Your task to perform on an android device: open app "Paramount+ | Peak Streaming" Image 0: 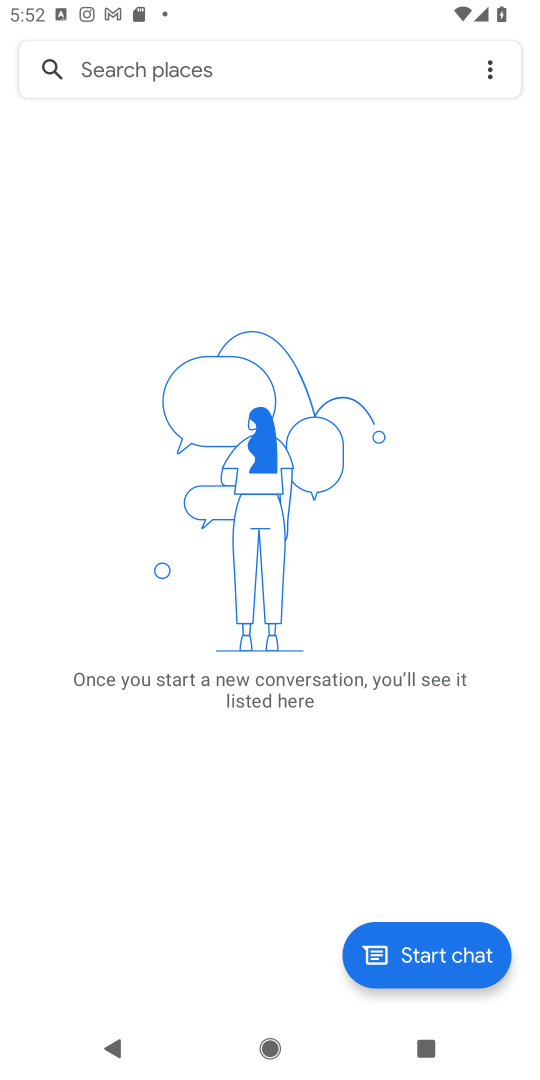
Step 0: press home button
Your task to perform on an android device: open app "Paramount+ | Peak Streaming" Image 1: 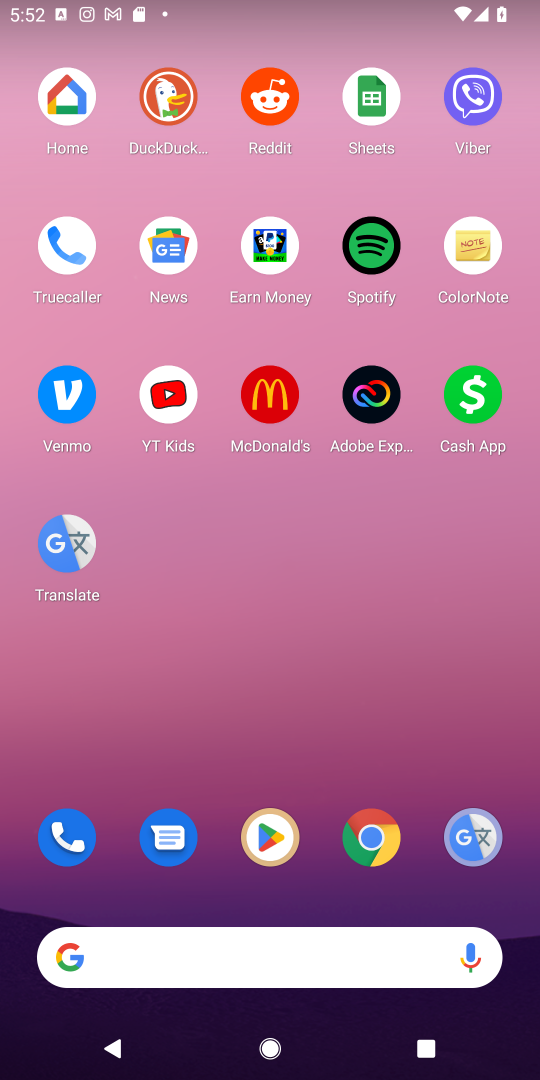
Step 1: press home button
Your task to perform on an android device: open app "Paramount+ | Peak Streaming" Image 2: 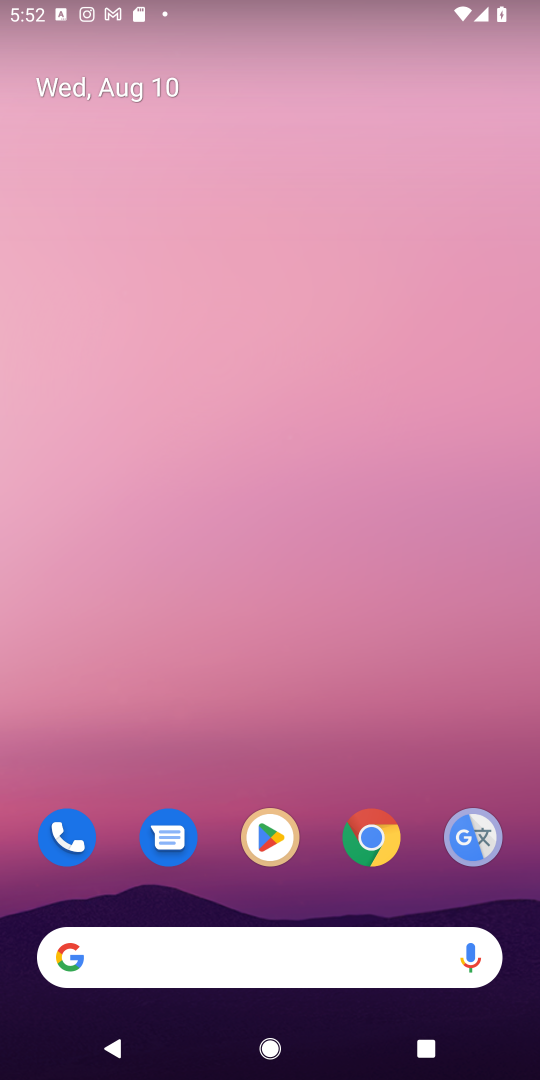
Step 2: click (275, 831)
Your task to perform on an android device: open app "Paramount+ | Peak Streaming" Image 3: 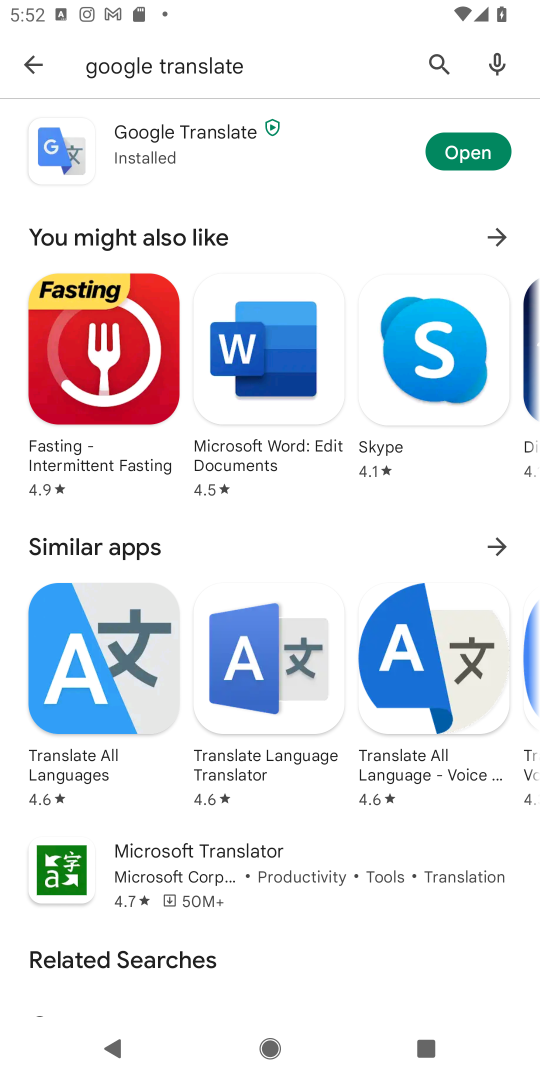
Step 3: click (429, 57)
Your task to perform on an android device: open app "Paramount+ | Peak Streaming" Image 4: 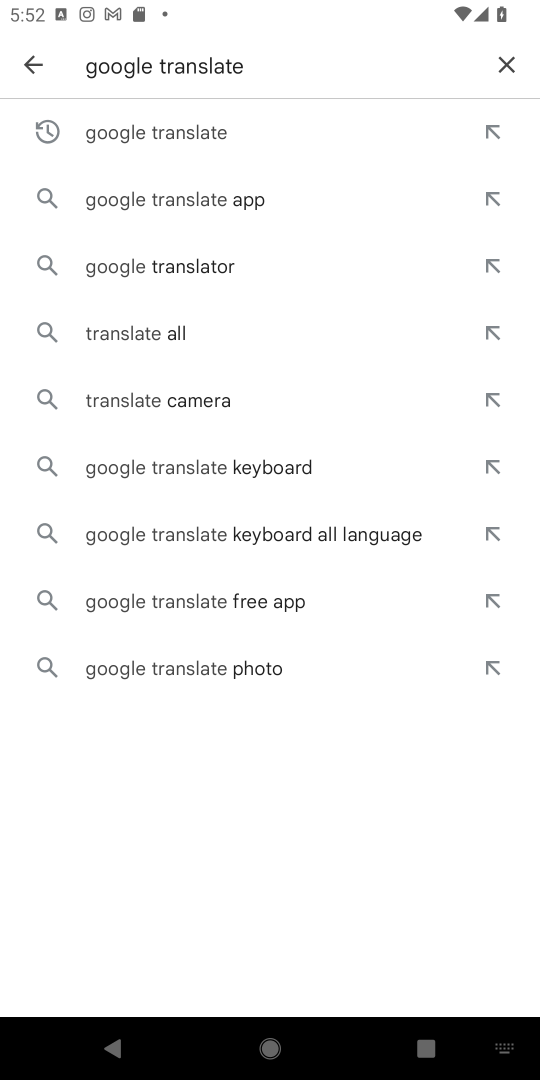
Step 4: click (509, 55)
Your task to perform on an android device: open app "Paramount+ | Peak Streaming" Image 5: 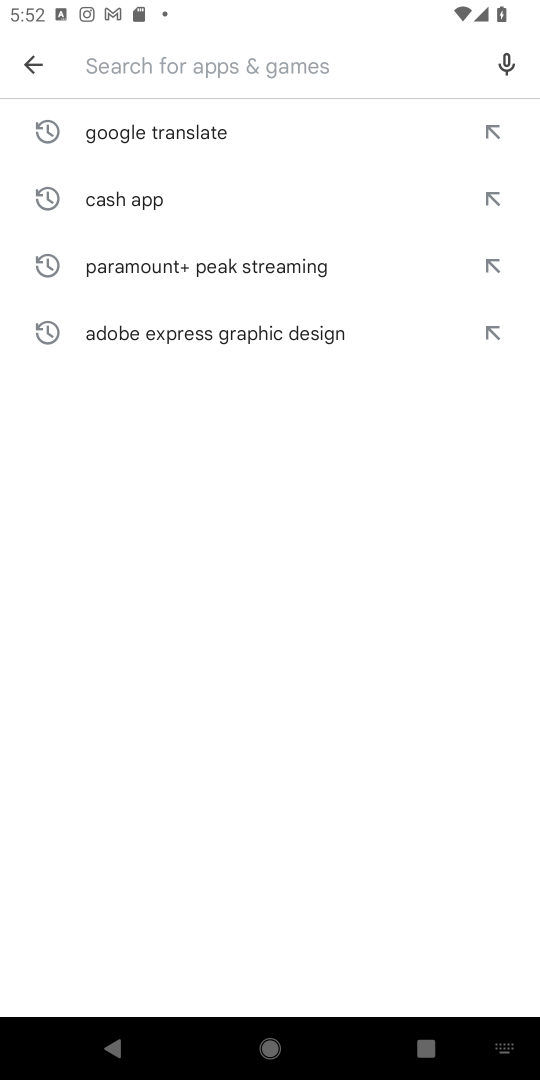
Step 5: type "Paramount+ | Peak Streaming"
Your task to perform on an android device: open app "Paramount+ | Peak Streaming" Image 6: 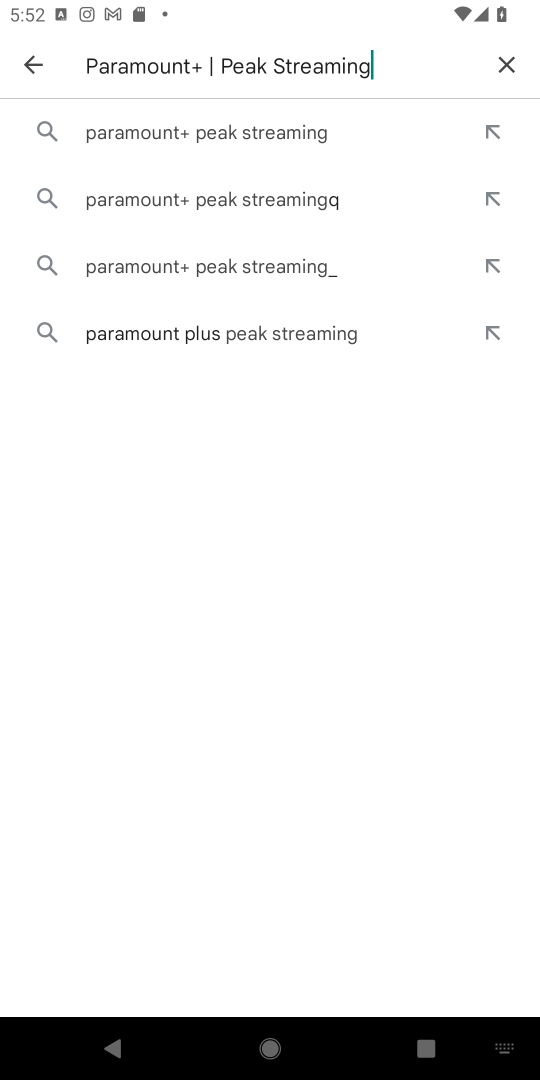
Step 6: click (296, 129)
Your task to perform on an android device: open app "Paramount+ | Peak Streaming" Image 7: 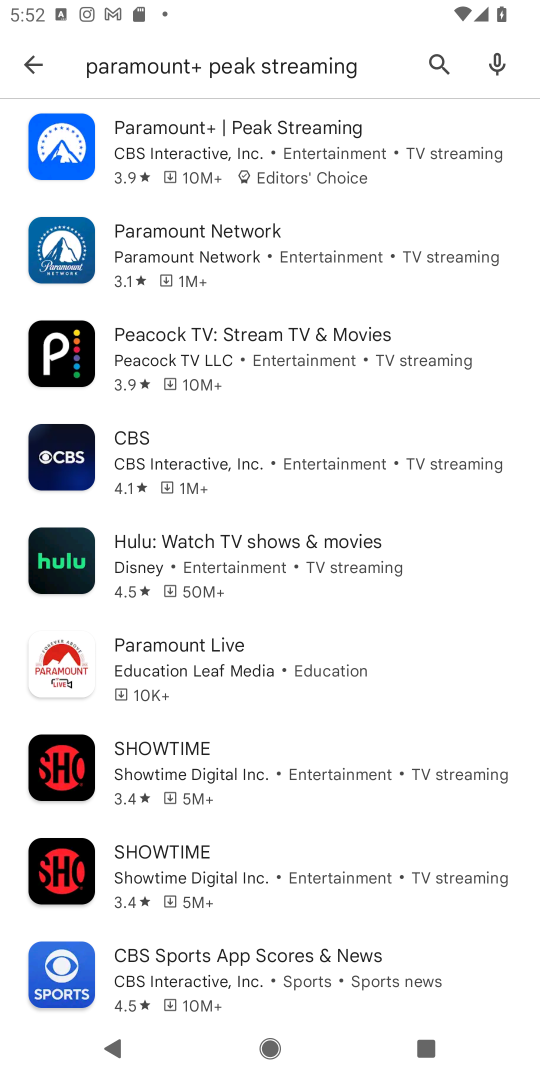
Step 7: click (246, 144)
Your task to perform on an android device: open app "Paramount+ | Peak Streaming" Image 8: 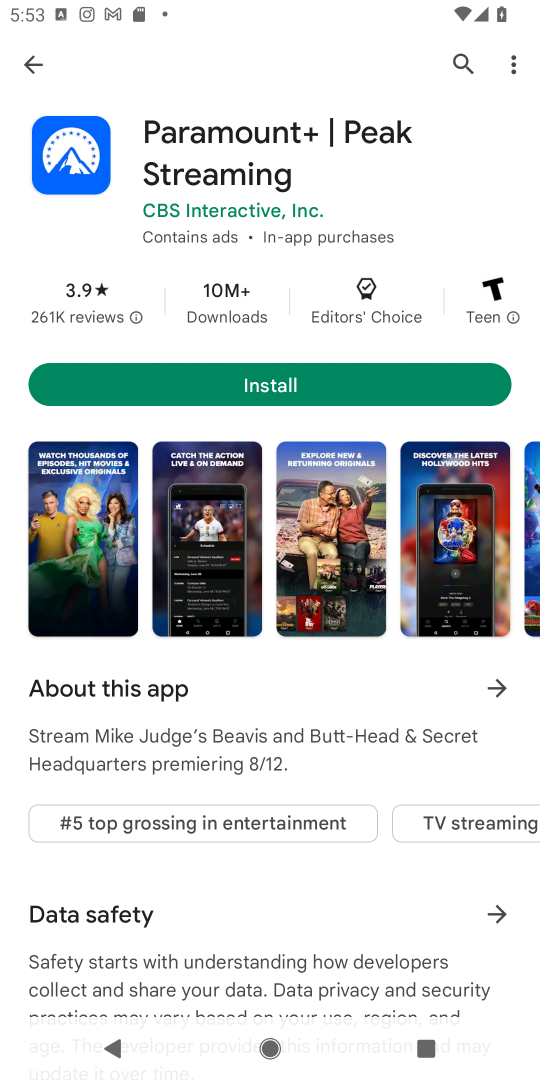
Step 8: task complete